Your task to perform on an android device: Open battery settings Image 0: 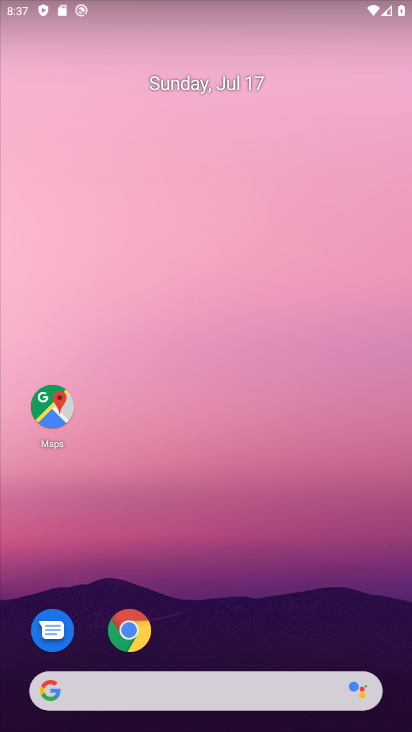
Step 0: drag from (227, 639) to (225, 200)
Your task to perform on an android device: Open battery settings Image 1: 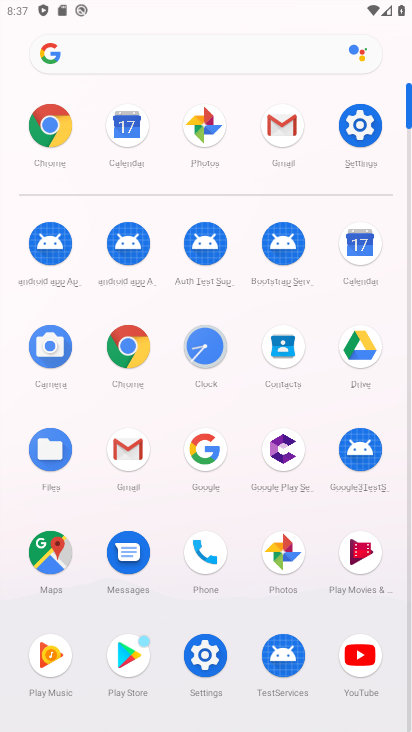
Step 1: click (356, 137)
Your task to perform on an android device: Open battery settings Image 2: 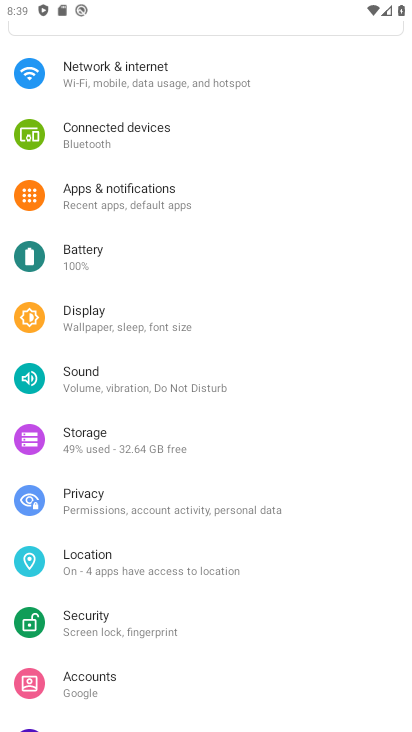
Step 2: click (122, 239)
Your task to perform on an android device: Open battery settings Image 3: 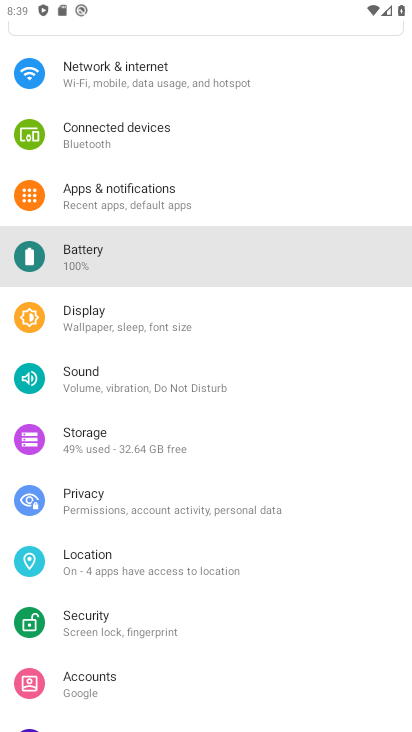
Step 3: task complete